Your task to perform on an android device: turn on sleep mode Image 0: 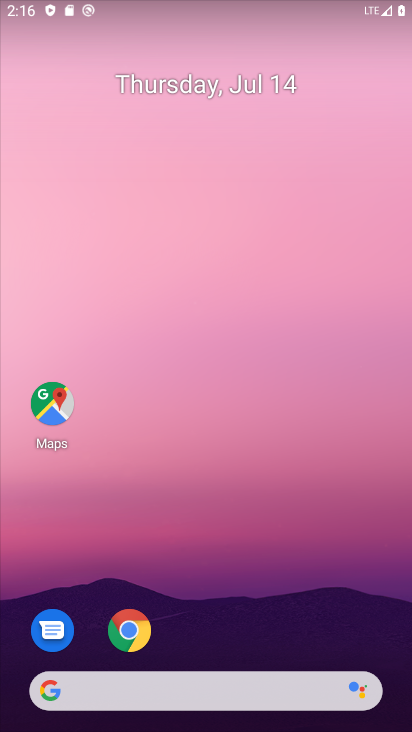
Step 0: press home button
Your task to perform on an android device: turn on sleep mode Image 1: 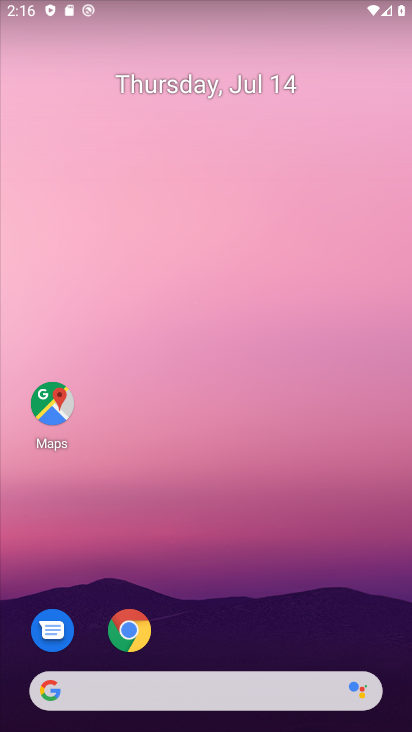
Step 1: drag from (228, 642) to (151, 189)
Your task to perform on an android device: turn on sleep mode Image 2: 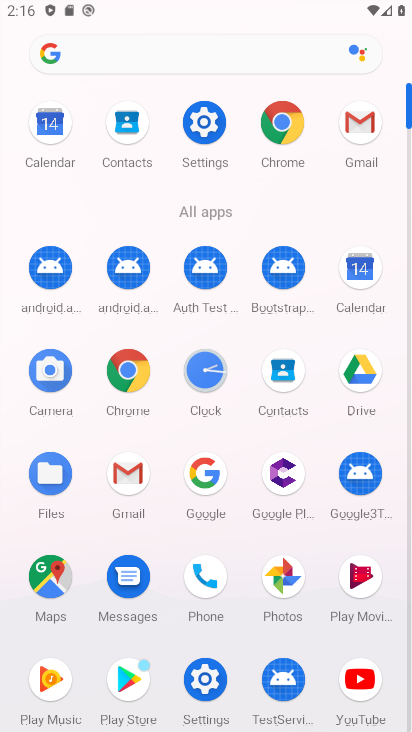
Step 2: click (198, 113)
Your task to perform on an android device: turn on sleep mode Image 3: 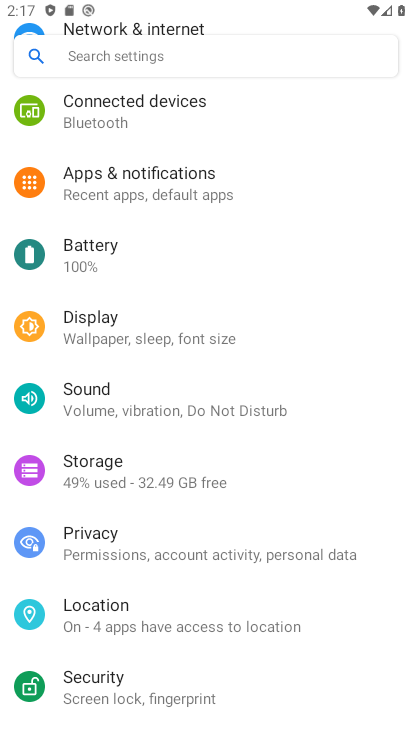
Step 3: click (132, 323)
Your task to perform on an android device: turn on sleep mode Image 4: 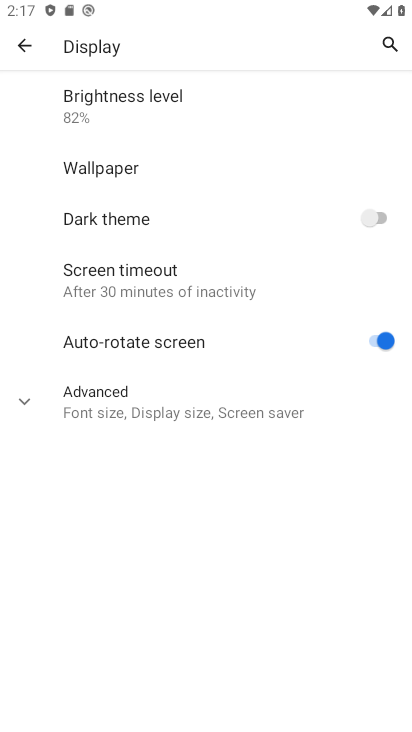
Step 4: click (39, 395)
Your task to perform on an android device: turn on sleep mode Image 5: 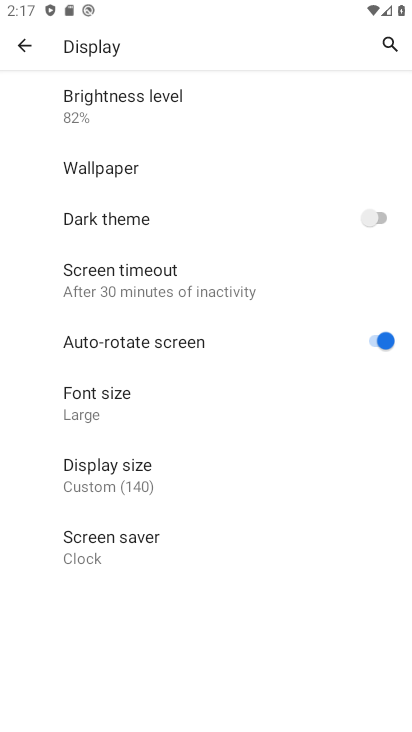
Step 5: task complete